Your task to perform on an android device: Go to wifi settings Image 0: 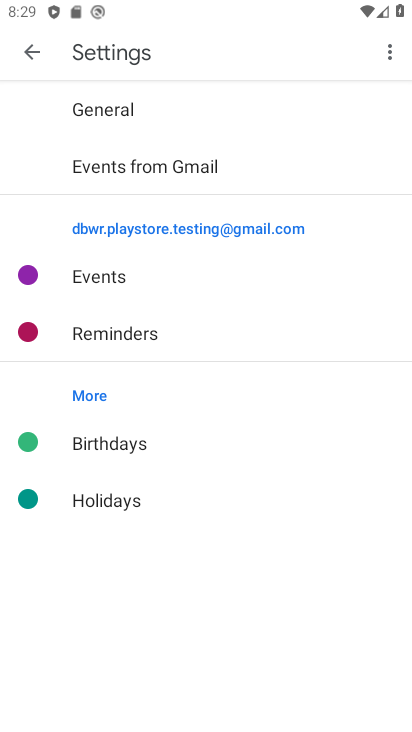
Step 0: press home button
Your task to perform on an android device: Go to wifi settings Image 1: 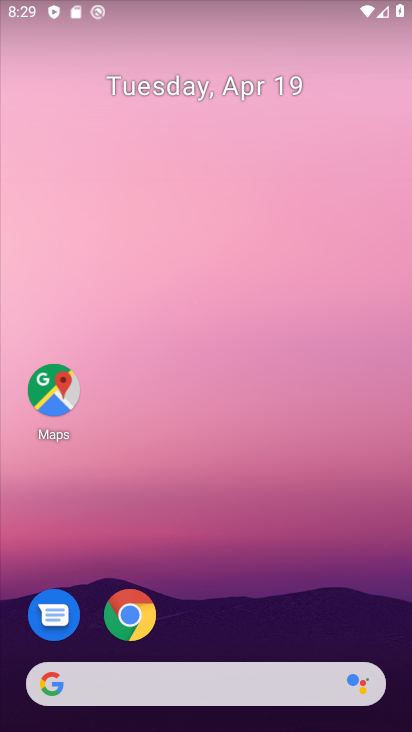
Step 1: drag from (210, 584) to (257, 65)
Your task to perform on an android device: Go to wifi settings Image 2: 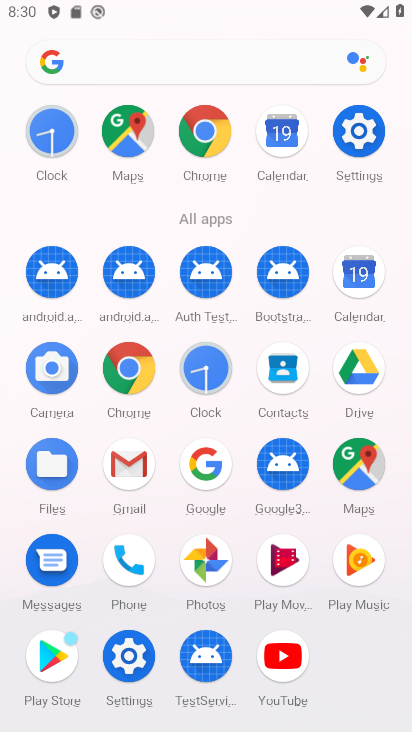
Step 2: click (356, 148)
Your task to perform on an android device: Go to wifi settings Image 3: 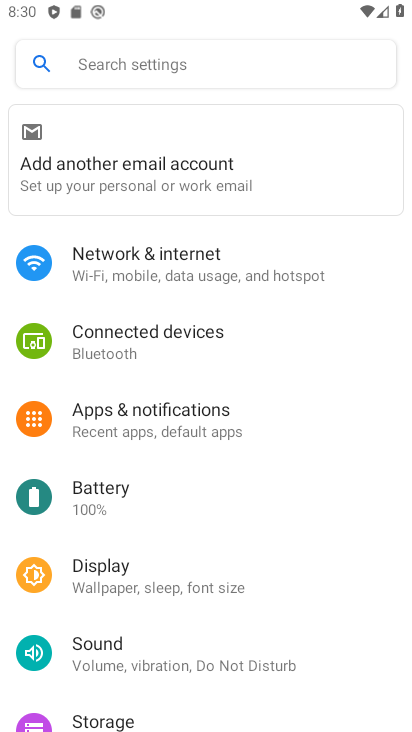
Step 3: click (146, 250)
Your task to perform on an android device: Go to wifi settings Image 4: 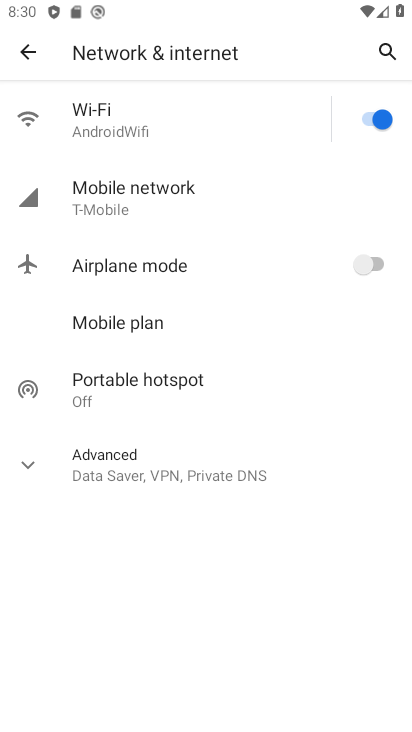
Step 4: click (176, 124)
Your task to perform on an android device: Go to wifi settings Image 5: 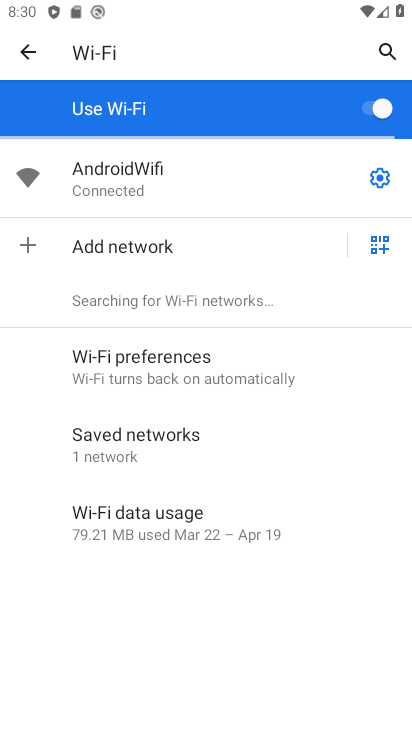
Step 5: task complete